Your task to perform on an android device: choose inbox layout in the gmail app Image 0: 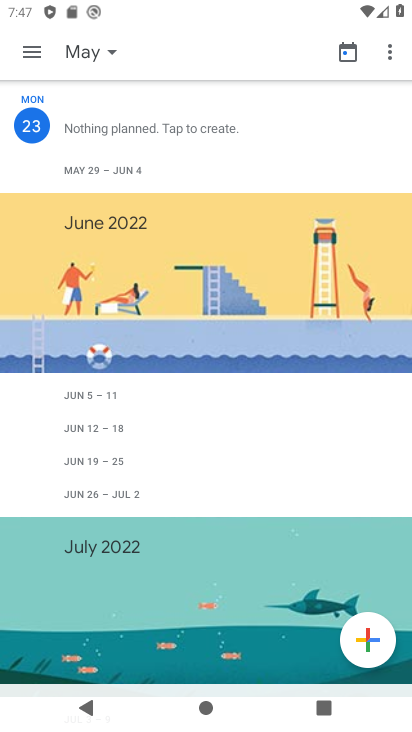
Step 0: press home button
Your task to perform on an android device: choose inbox layout in the gmail app Image 1: 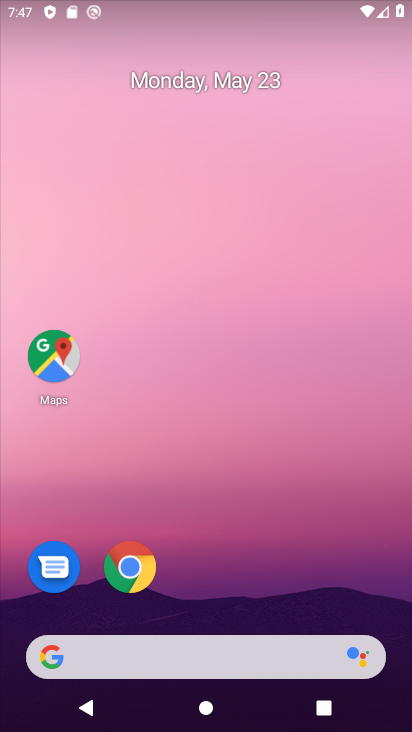
Step 1: drag from (189, 593) to (253, 73)
Your task to perform on an android device: choose inbox layout in the gmail app Image 2: 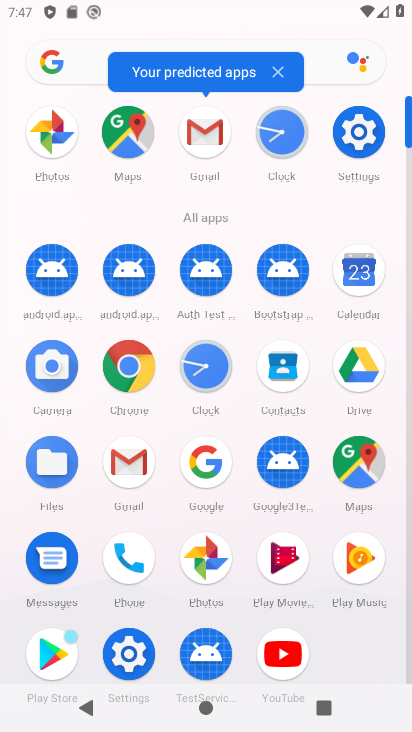
Step 2: click (122, 464)
Your task to perform on an android device: choose inbox layout in the gmail app Image 3: 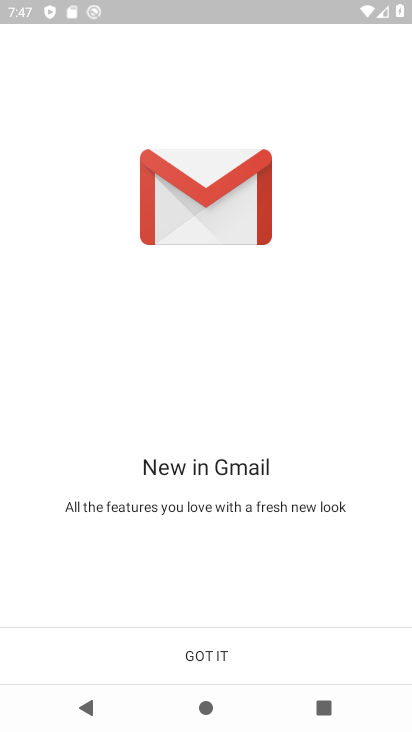
Step 3: click (208, 652)
Your task to perform on an android device: choose inbox layout in the gmail app Image 4: 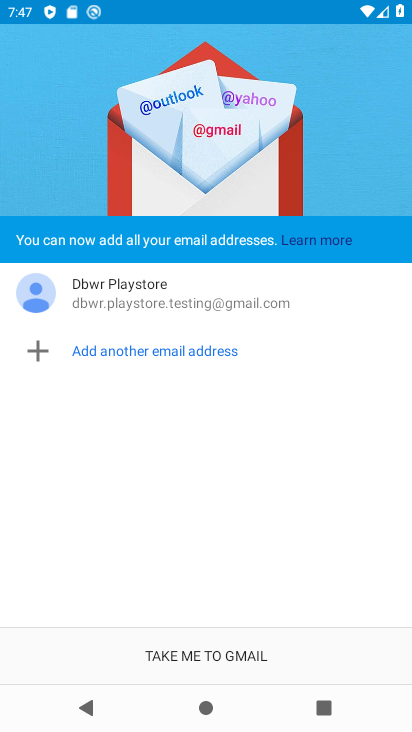
Step 4: click (238, 654)
Your task to perform on an android device: choose inbox layout in the gmail app Image 5: 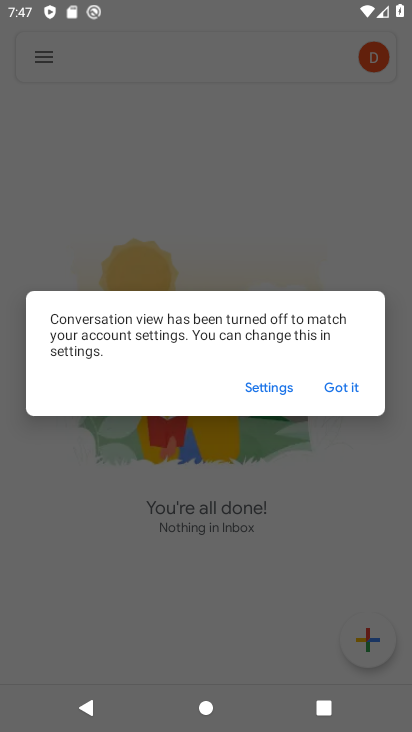
Step 5: click (345, 380)
Your task to perform on an android device: choose inbox layout in the gmail app Image 6: 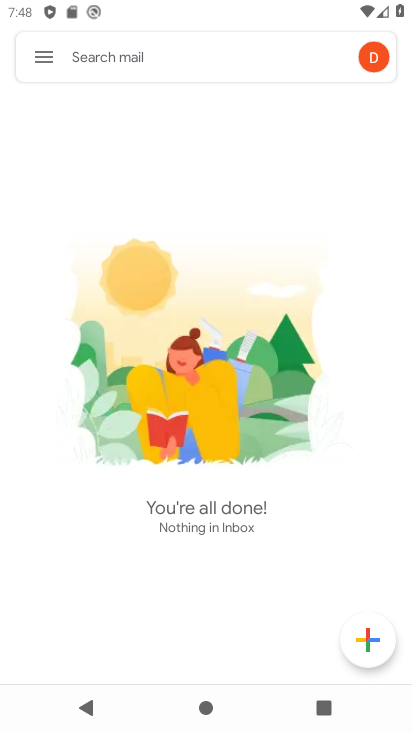
Step 6: click (48, 66)
Your task to perform on an android device: choose inbox layout in the gmail app Image 7: 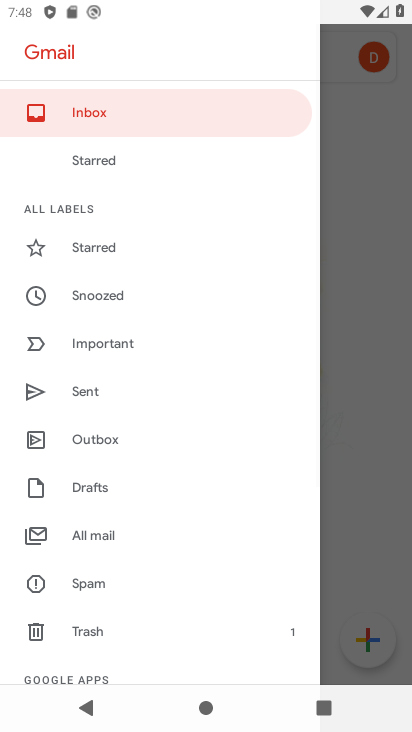
Step 7: drag from (94, 590) to (169, 191)
Your task to perform on an android device: choose inbox layout in the gmail app Image 8: 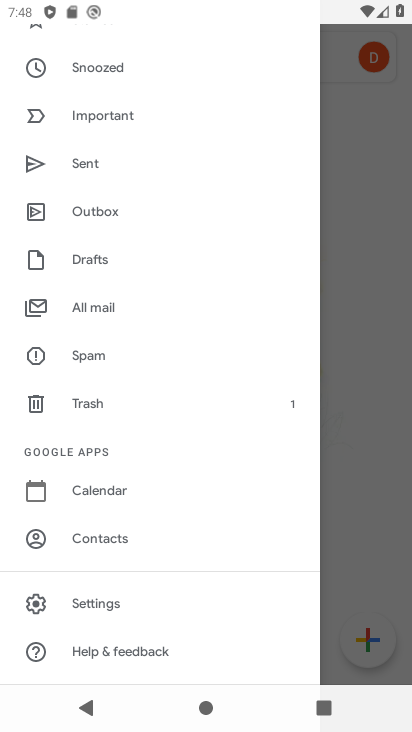
Step 8: click (96, 608)
Your task to perform on an android device: choose inbox layout in the gmail app Image 9: 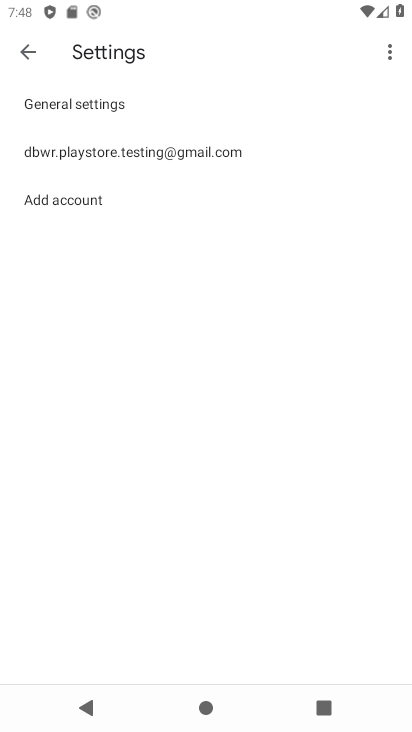
Step 9: click (120, 150)
Your task to perform on an android device: choose inbox layout in the gmail app Image 10: 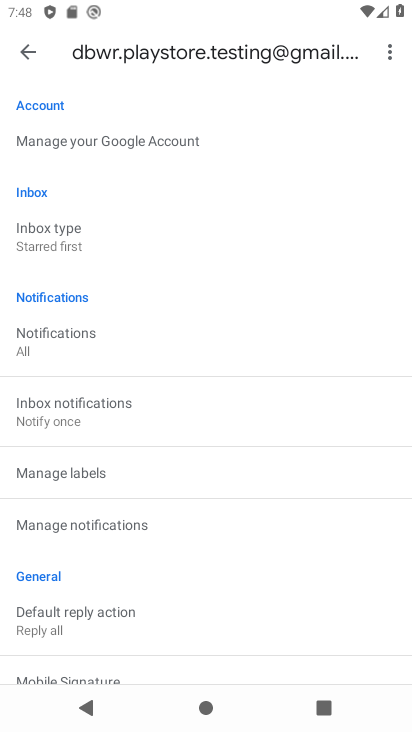
Step 10: click (83, 247)
Your task to perform on an android device: choose inbox layout in the gmail app Image 11: 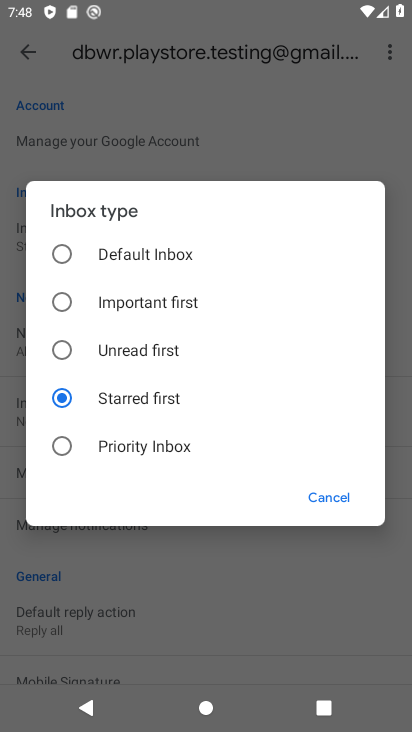
Step 11: click (82, 248)
Your task to perform on an android device: choose inbox layout in the gmail app Image 12: 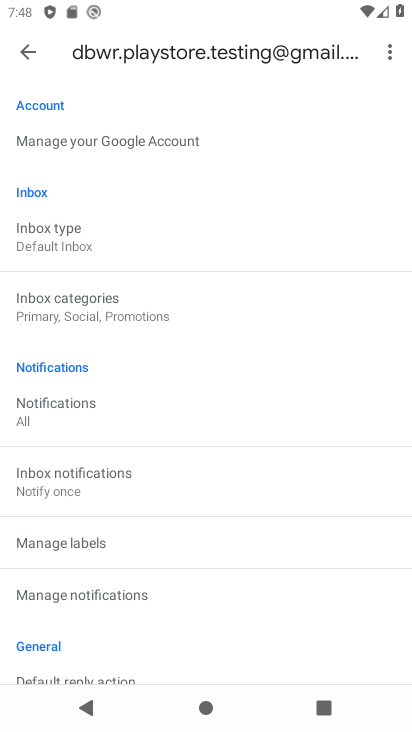
Step 12: task complete